Your task to perform on an android device: Open calendar and show me the third week of next month Image 0: 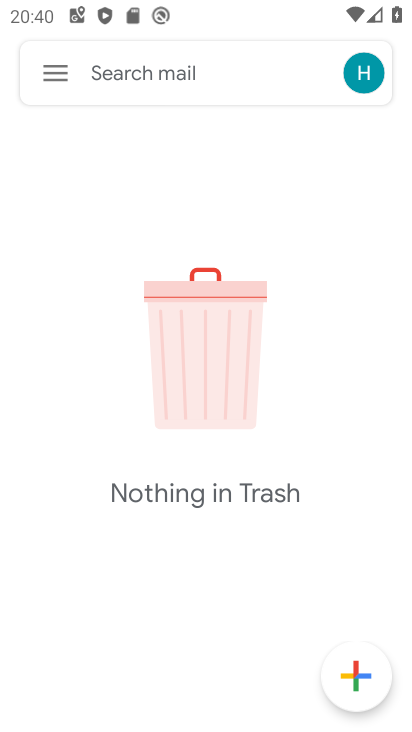
Step 0: press home button
Your task to perform on an android device: Open calendar and show me the third week of next month Image 1: 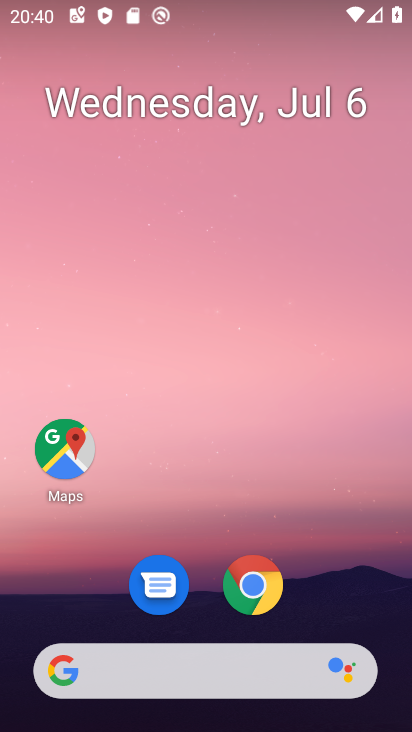
Step 1: drag from (221, 405) to (228, 11)
Your task to perform on an android device: Open calendar and show me the third week of next month Image 2: 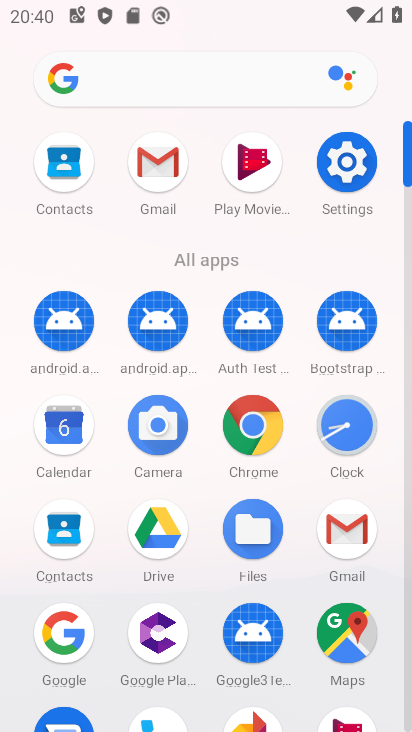
Step 2: click (70, 427)
Your task to perform on an android device: Open calendar and show me the third week of next month Image 3: 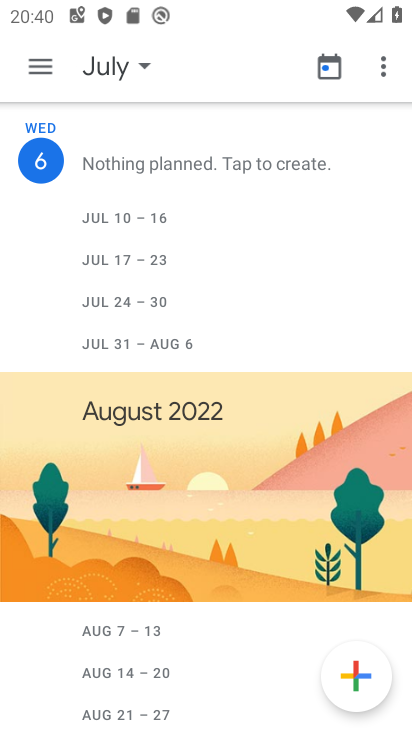
Step 3: click (34, 59)
Your task to perform on an android device: Open calendar and show me the third week of next month Image 4: 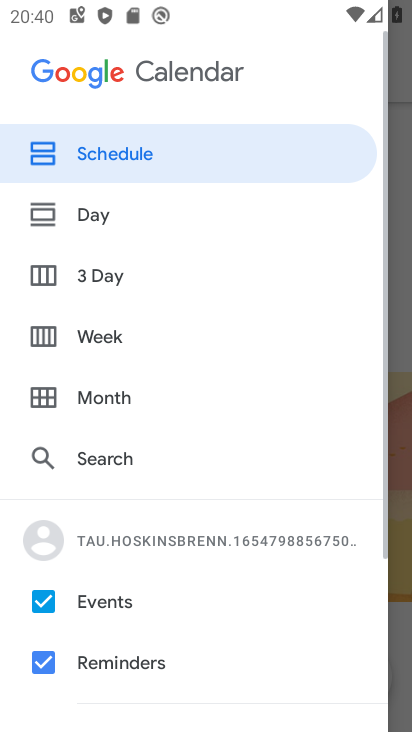
Step 4: click (86, 396)
Your task to perform on an android device: Open calendar and show me the third week of next month Image 5: 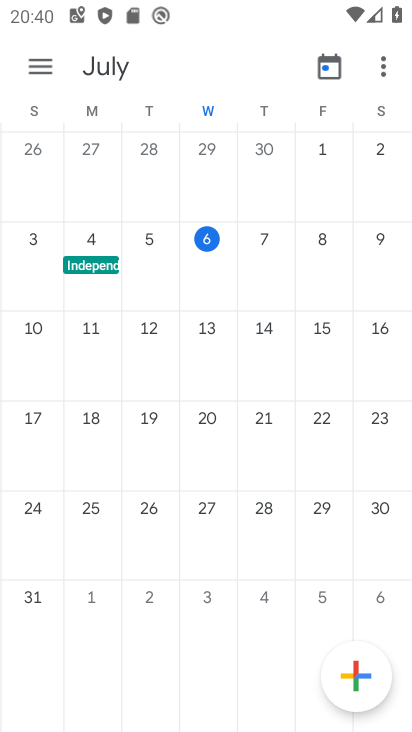
Step 5: drag from (361, 390) to (3, 345)
Your task to perform on an android device: Open calendar and show me the third week of next month Image 6: 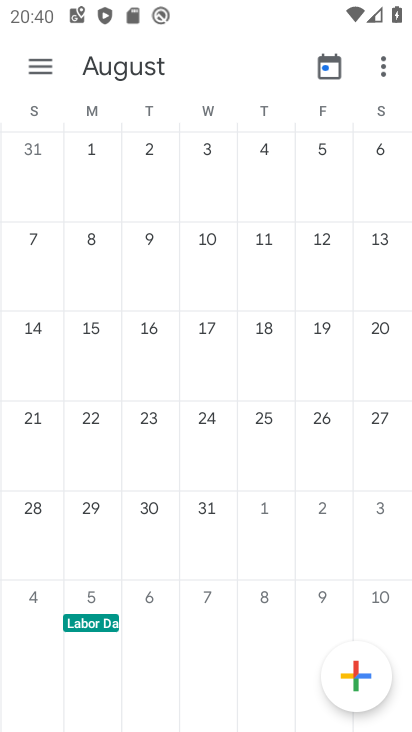
Step 6: click (29, 427)
Your task to perform on an android device: Open calendar and show me the third week of next month Image 7: 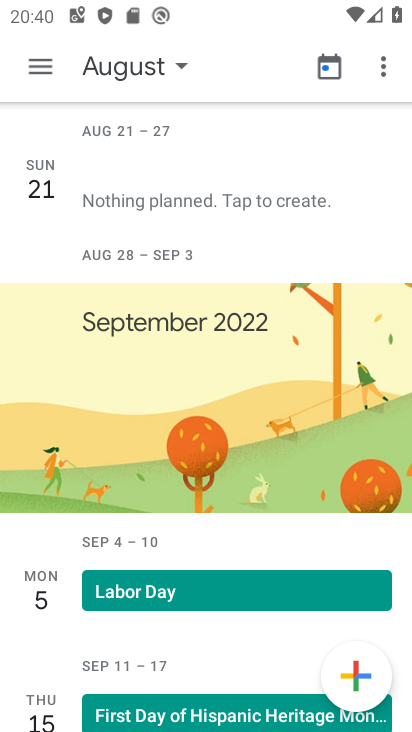
Step 7: click (35, 68)
Your task to perform on an android device: Open calendar and show me the third week of next month Image 8: 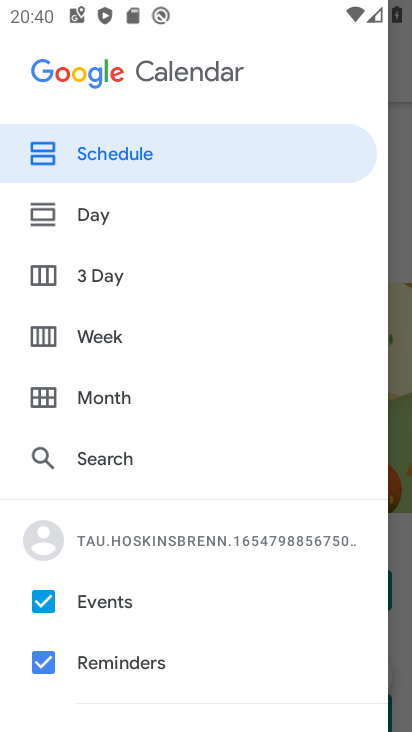
Step 8: click (45, 332)
Your task to perform on an android device: Open calendar and show me the third week of next month Image 9: 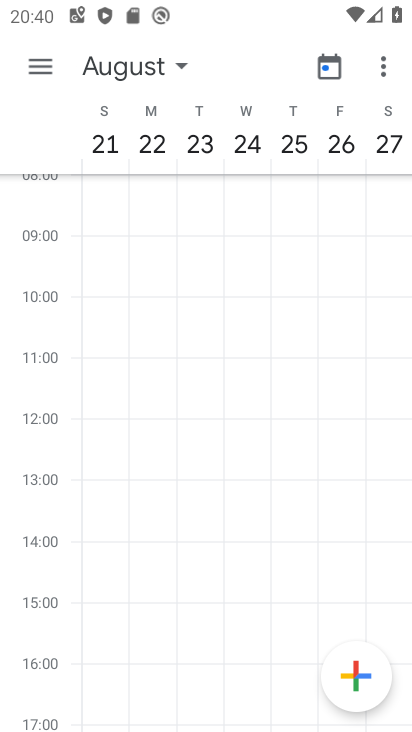
Step 9: task complete